Your task to perform on an android device: Go to Maps Image 0: 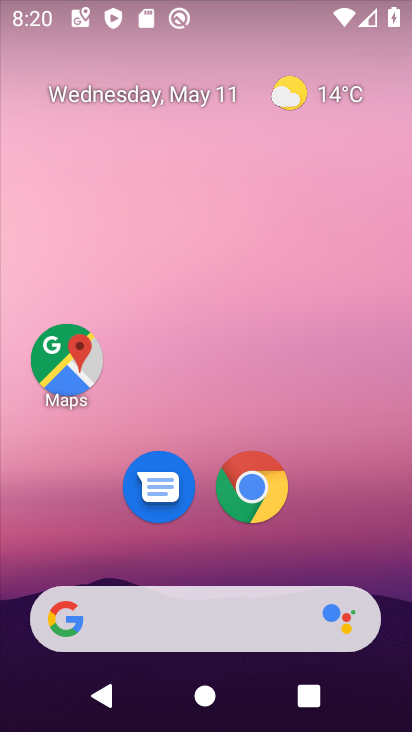
Step 0: click (51, 370)
Your task to perform on an android device: Go to Maps Image 1: 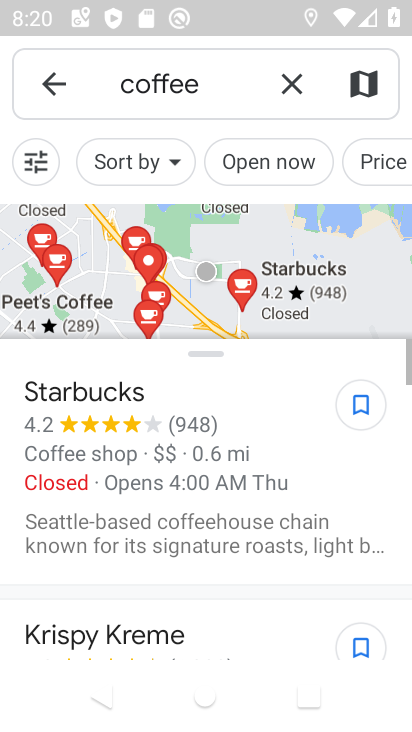
Step 1: click (296, 82)
Your task to perform on an android device: Go to Maps Image 2: 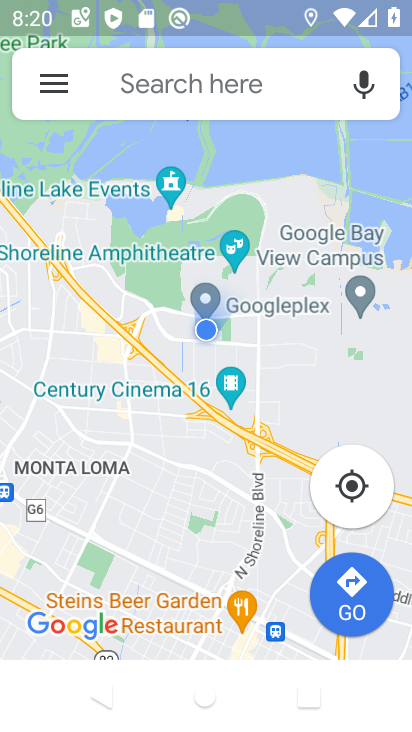
Step 2: task complete